Your task to perform on an android device: open wifi settings Image 0: 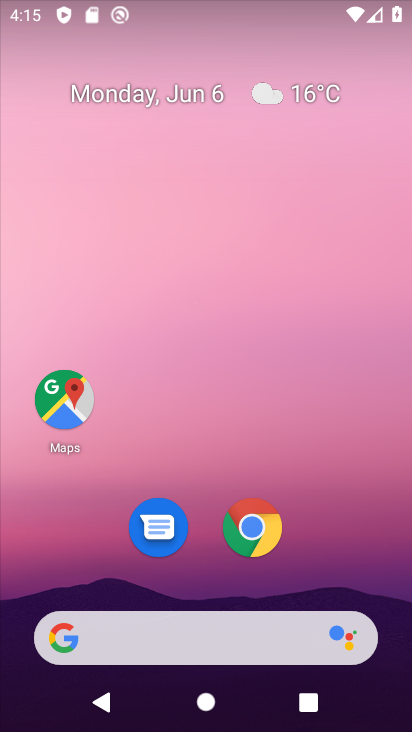
Step 0: drag from (219, 560) to (223, 204)
Your task to perform on an android device: open wifi settings Image 1: 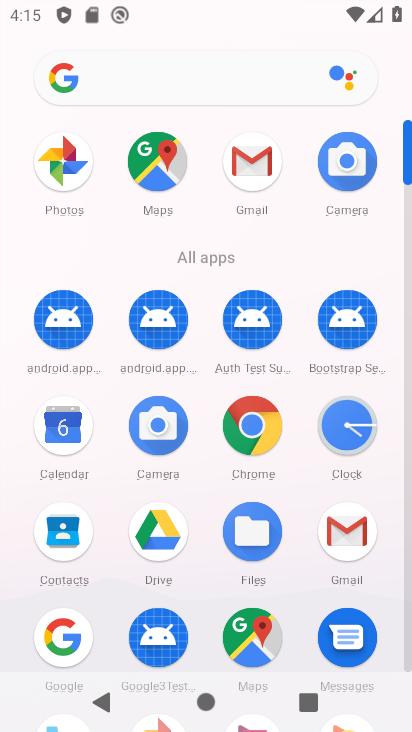
Step 1: drag from (274, 564) to (296, 320)
Your task to perform on an android device: open wifi settings Image 2: 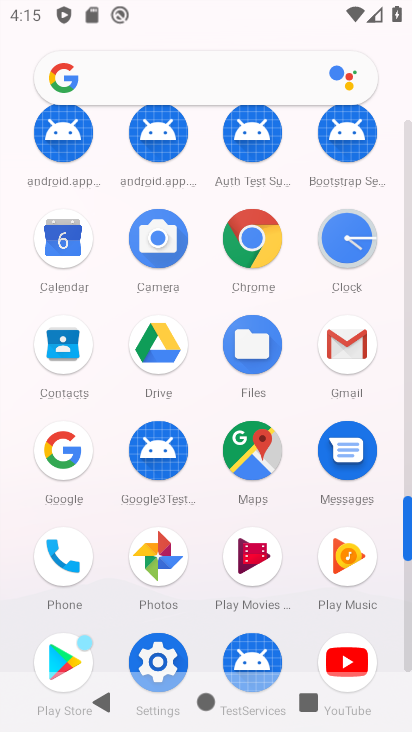
Step 2: click (147, 650)
Your task to perform on an android device: open wifi settings Image 3: 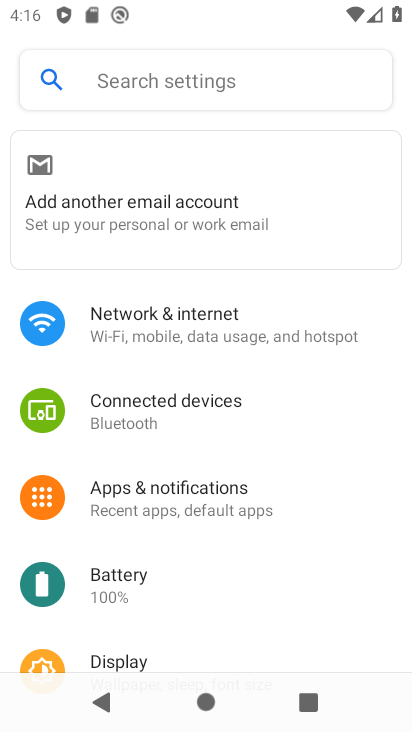
Step 3: click (175, 333)
Your task to perform on an android device: open wifi settings Image 4: 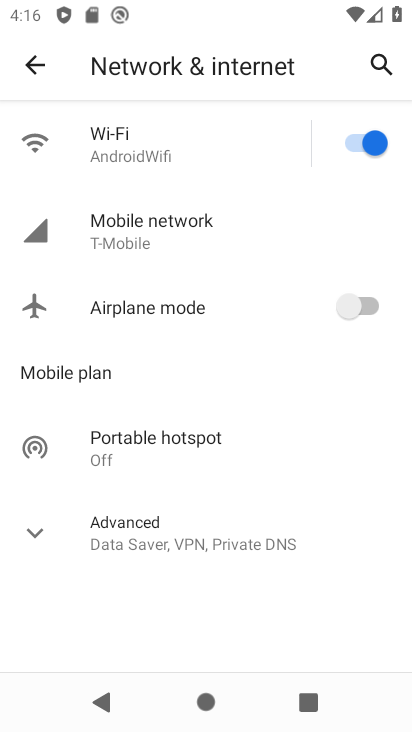
Step 4: click (148, 142)
Your task to perform on an android device: open wifi settings Image 5: 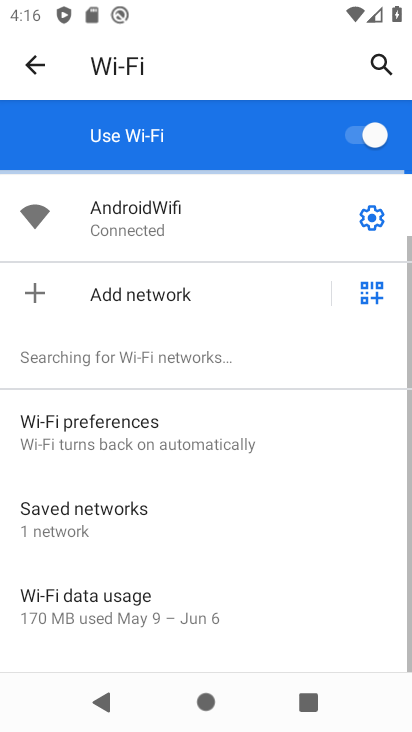
Step 5: click (364, 220)
Your task to perform on an android device: open wifi settings Image 6: 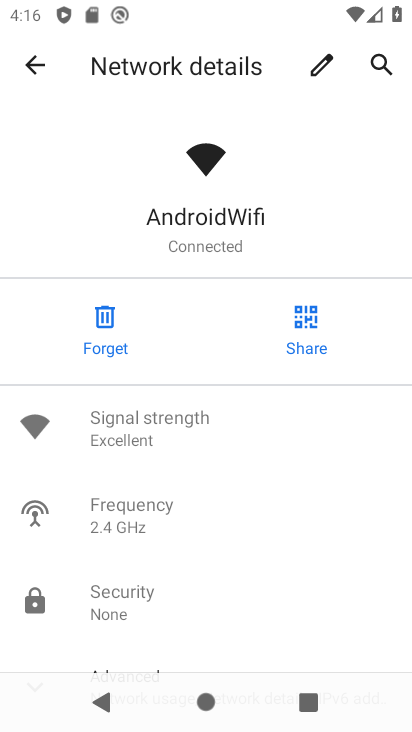
Step 6: task complete